Your task to perform on an android device: turn off sleep mode Image 0: 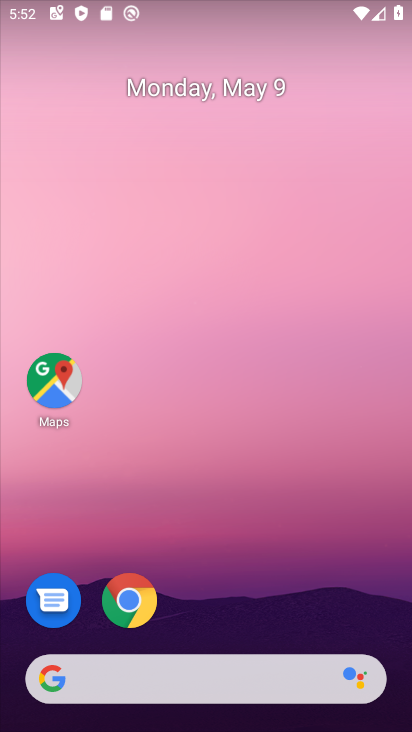
Step 0: drag from (232, 632) to (280, 147)
Your task to perform on an android device: turn off sleep mode Image 1: 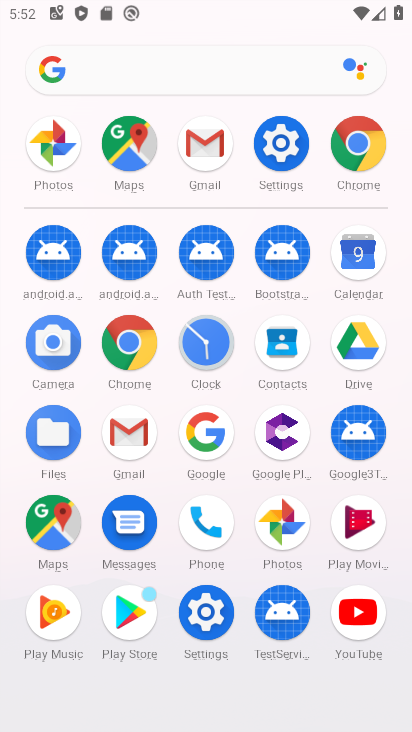
Step 1: click (271, 175)
Your task to perform on an android device: turn off sleep mode Image 2: 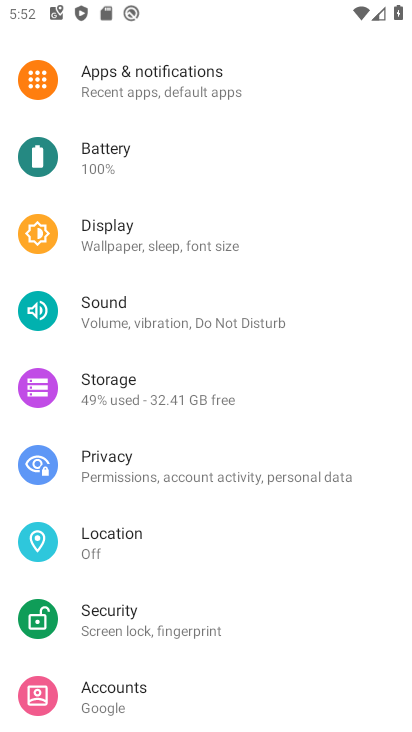
Step 2: drag from (239, 191) to (233, 440)
Your task to perform on an android device: turn off sleep mode Image 3: 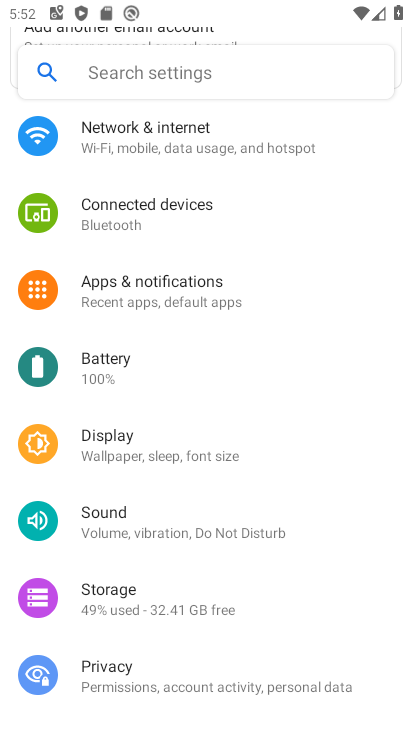
Step 3: click (191, 80)
Your task to perform on an android device: turn off sleep mode Image 4: 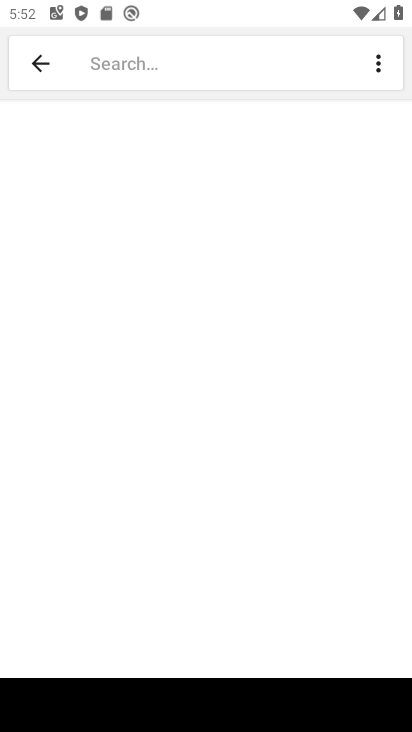
Step 4: type "sleep mode"
Your task to perform on an android device: turn off sleep mode Image 5: 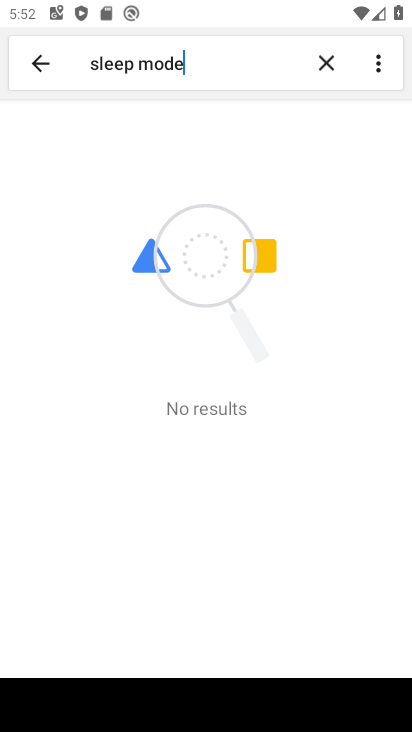
Step 5: task complete